Your task to perform on an android device: turn on priority inbox in the gmail app Image 0: 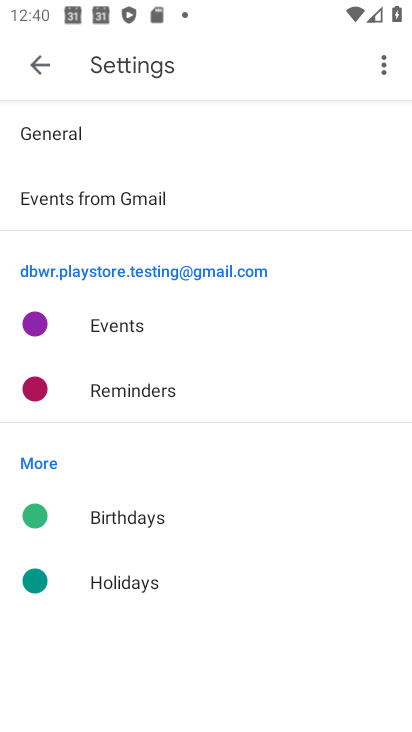
Step 0: press home button
Your task to perform on an android device: turn on priority inbox in the gmail app Image 1: 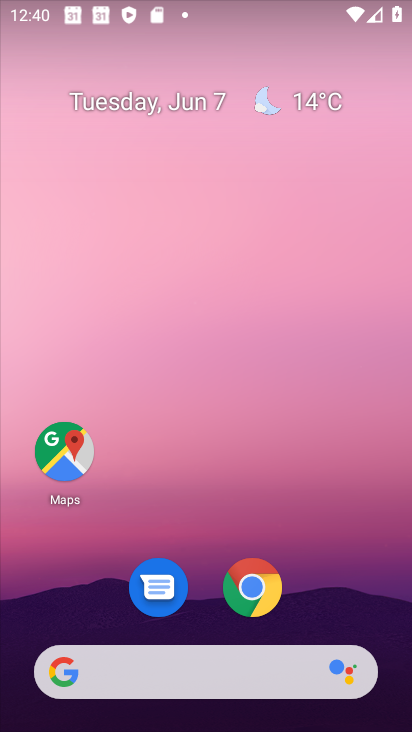
Step 1: drag from (229, 663) to (279, 109)
Your task to perform on an android device: turn on priority inbox in the gmail app Image 2: 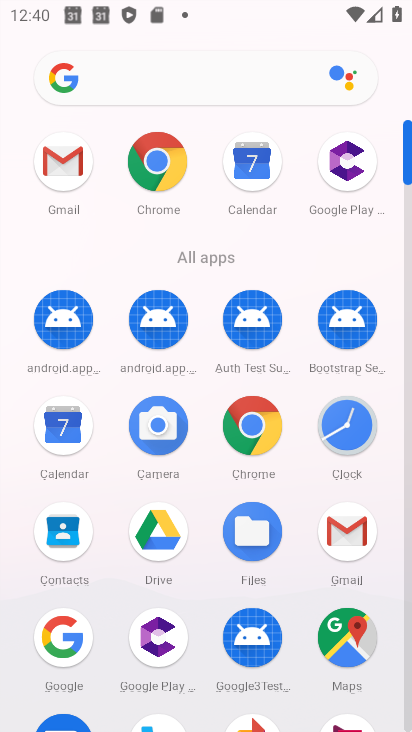
Step 2: click (358, 538)
Your task to perform on an android device: turn on priority inbox in the gmail app Image 3: 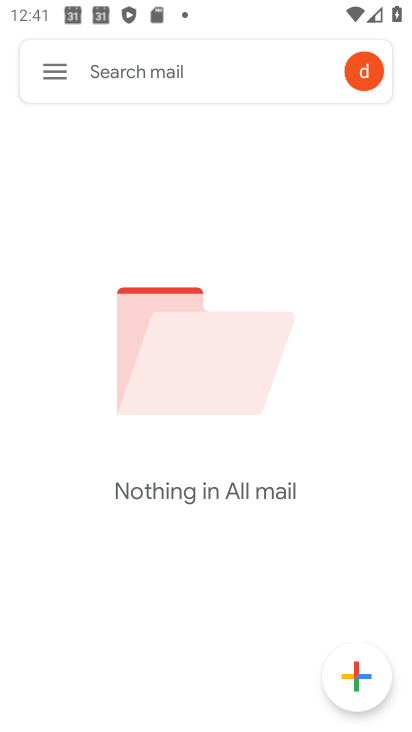
Step 3: click (60, 69)
Your task to perform on an android device: turn on priority inbox in the gmail app Image 4: 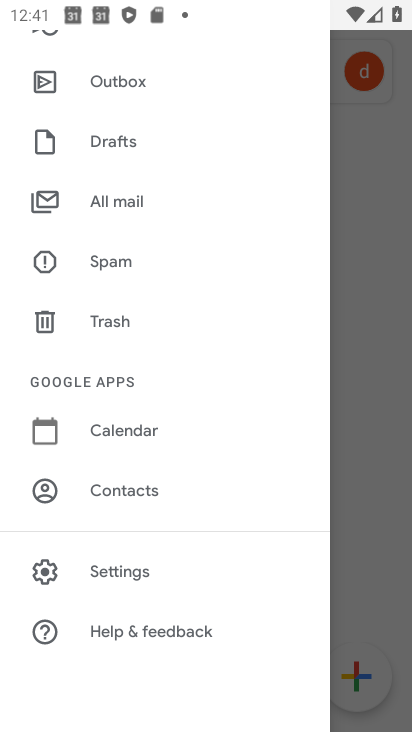
Step 4: click (155, 576)
Your task to perform on an android device: turn on priority inbox in the gmail app Image 5: 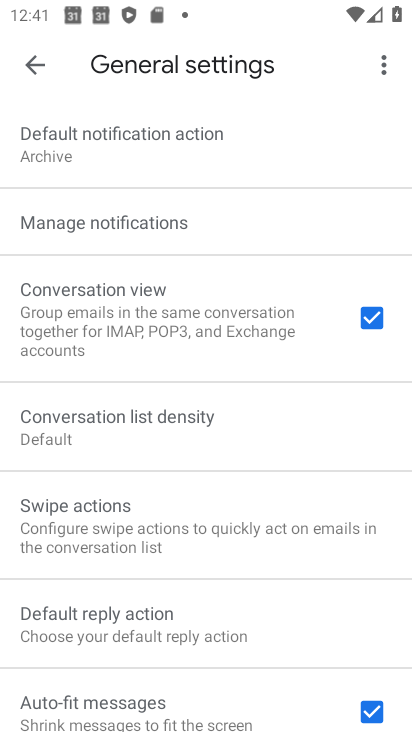
Step 5: click (45, 61)
Your task to perform on an android device: turn on priority inbox in the gmail app Image 6: 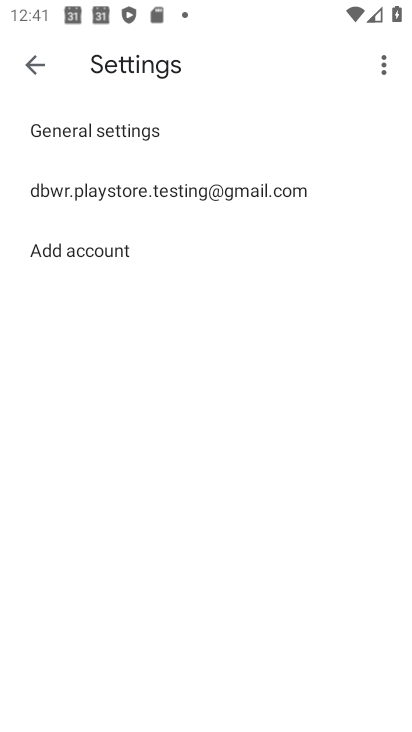
Step 6: click (161, 191)
Your task to perform on an android device: turn on priority inbox in the gmail app Image 7: 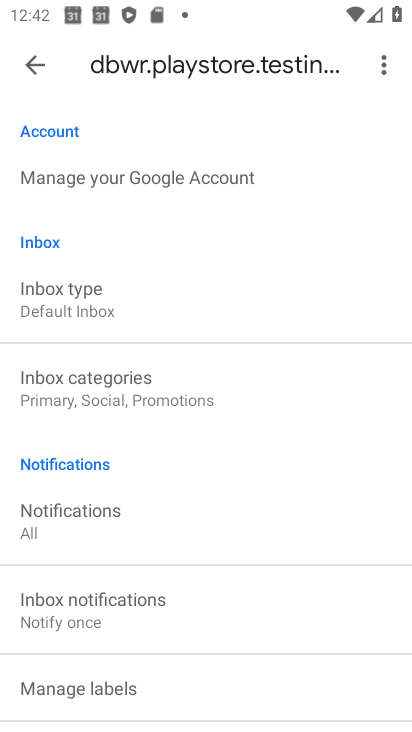
Step 7: click (137, 320)
Your task to perform on an android device: turn on priority inbox in the gmail app Image 8: 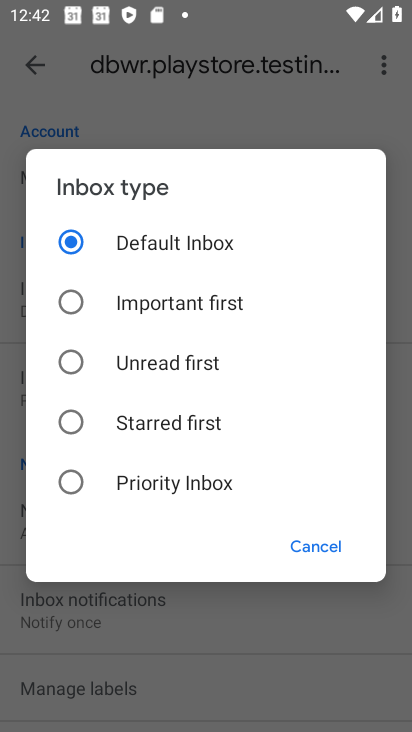
Step 8: click (88, 477)
Your task to perform on an android device: turn on priority inbox in the gmail app Image 9: 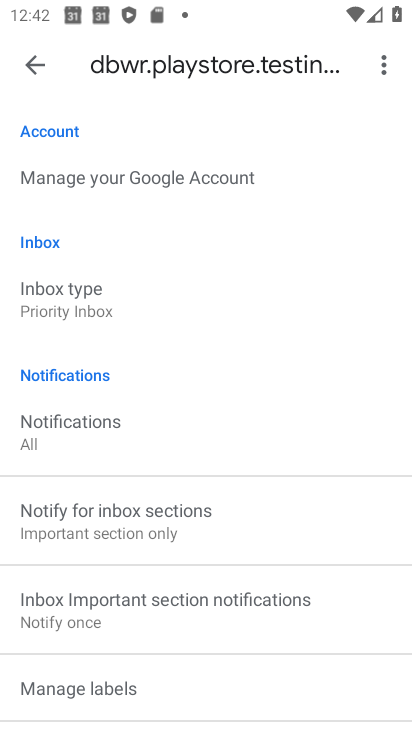
Step 9: task complete